Your task to perform on an android device: Go to privacy settings Image 0: 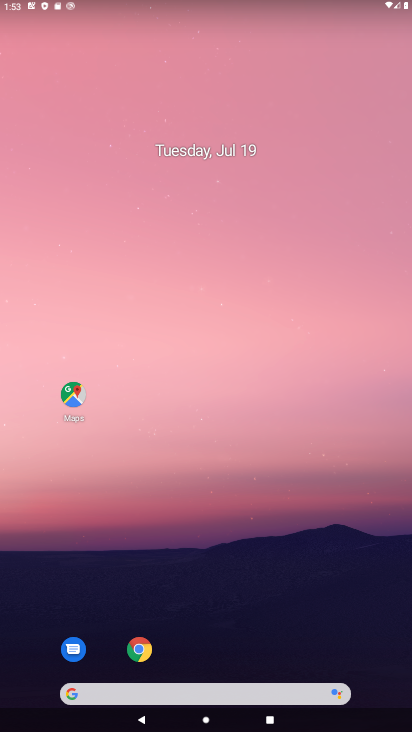
Step 0: drag from (265, 523) to (280, 140)
Your task to perform on an android device: Go to privacy settings Image 1: 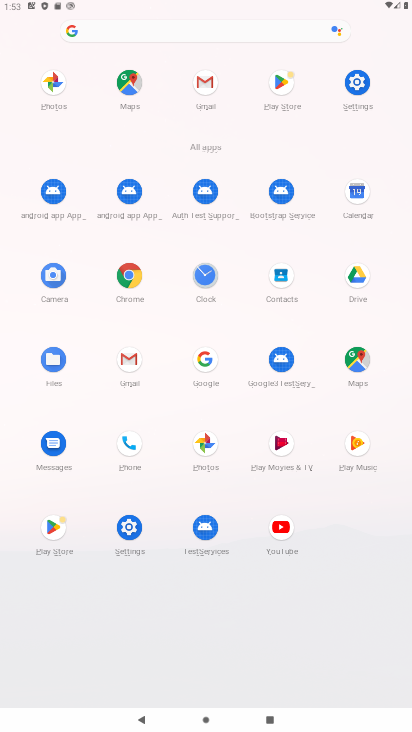
Step 1: drag from (359, 85) to (111, 177)
Your task to perform on an android device: Go to privacy settings Image 2: 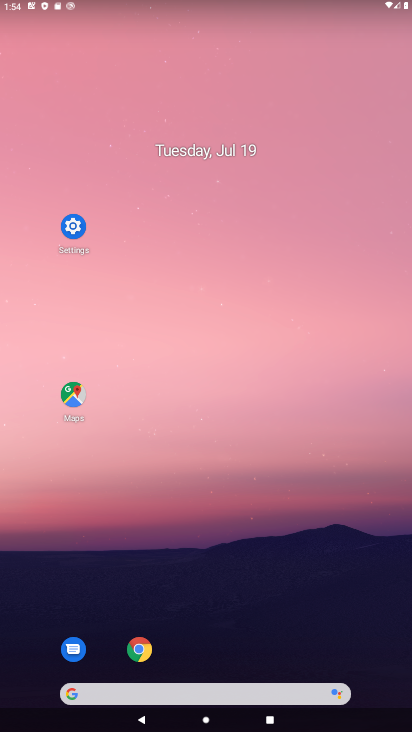
Step 2: click (69, 215)
Your task to perform on an android device: Go to privacy settings Image 3: 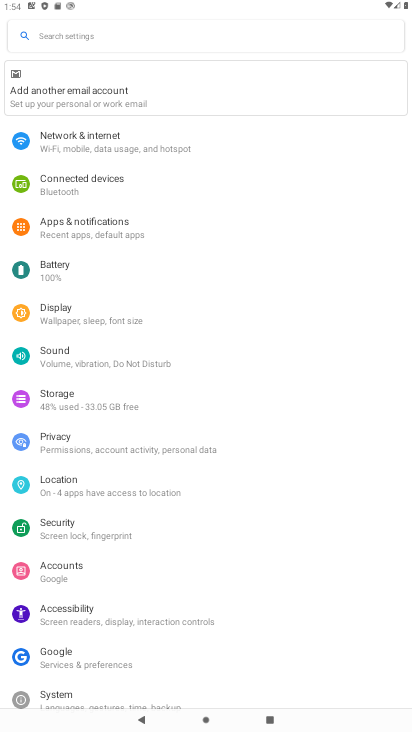
Step 3: click (129, 439)
Your task to perform on an android device: Go to privacy settings Image 4: 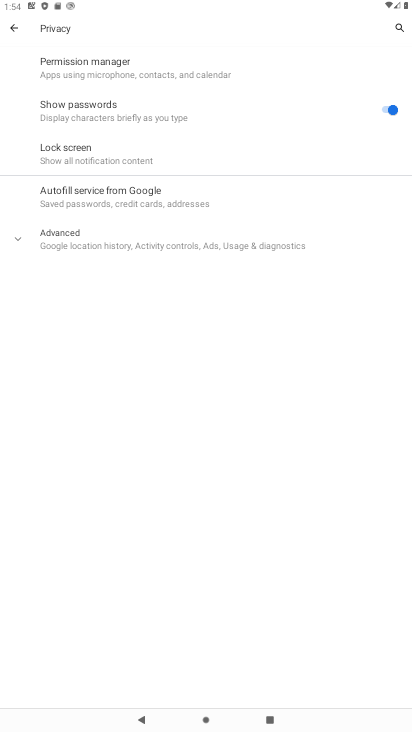
Step 4: task complete